Your task to perform on an android device: open the mobile data screen to see how much data has been used Image 0: 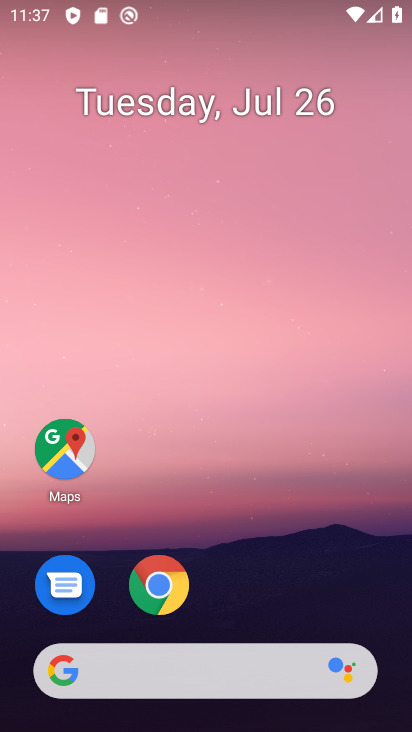
Step 0: click (283, 6)
Your task to perform on an android device: open the mobile data screen to see how much data has been used Image 1: 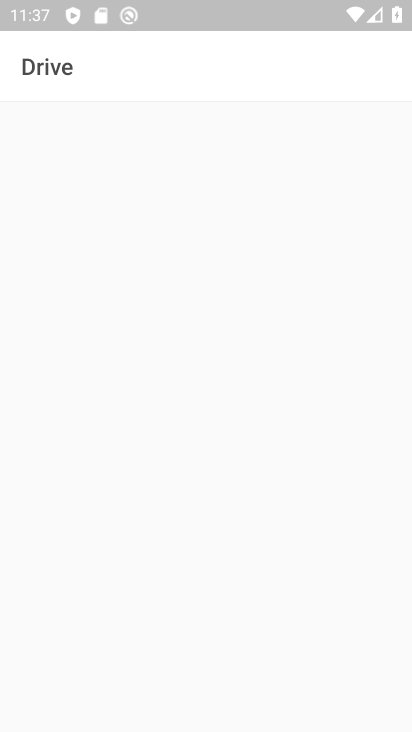
Step 1: press home button
Your task to perform on an android device: open the mobile data screen to see how much data has been used Image 2: 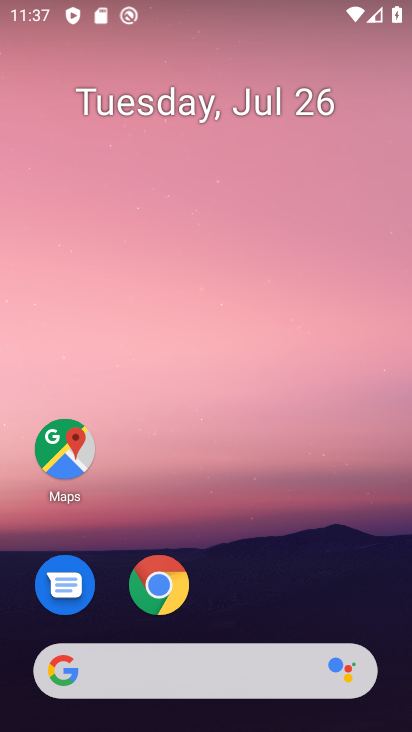
Step 2: drag from (266, 562) to (257, 114)
Your task to perform on an android device: open the mobile data screen to see how much data has been used Image 3: 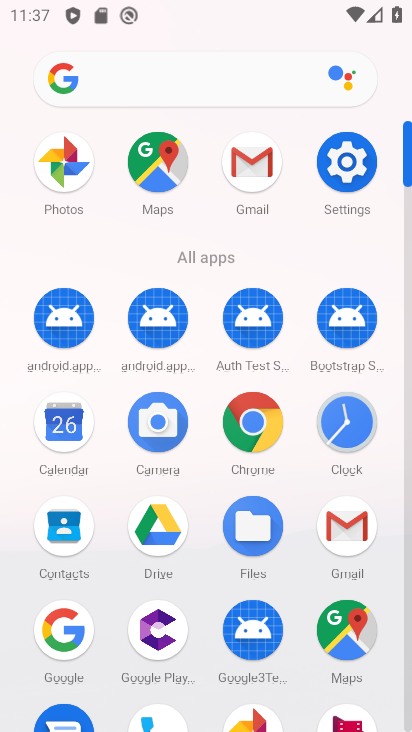
Step 3: click (342, 157)
Your task to perform on an android device: open the mobile data screen to see how much data has been used Image 4: 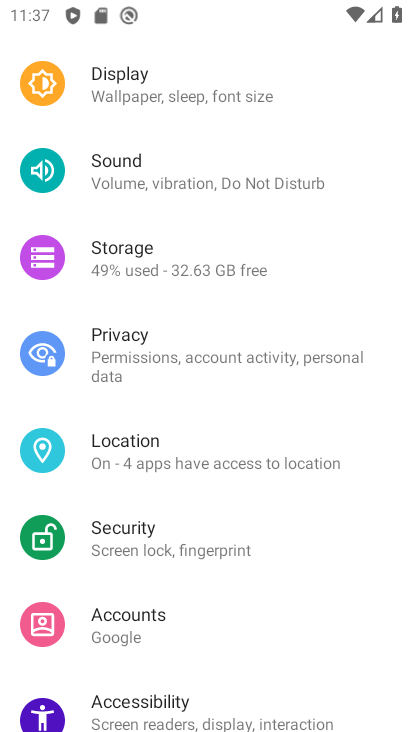
Step 4: drag from (230, 153) to (145, 674)
Your task to perform on an android device: open the mobile data screen to see how much data has been used Image 5: 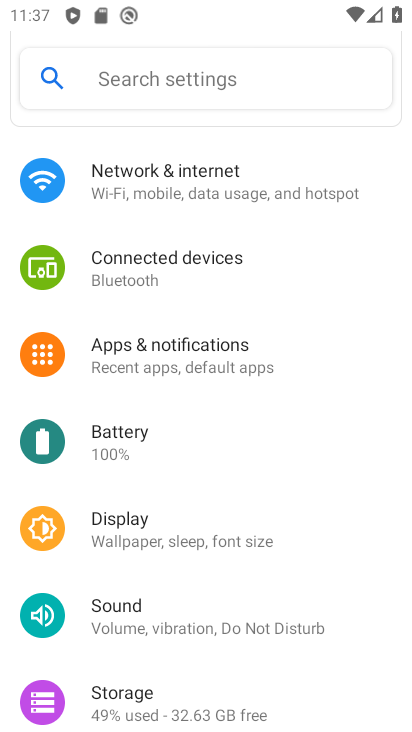
Step 5: click (230, 186)
Your task to perform on an android device: open the mobile data screen to see how much data has been used Image 6: 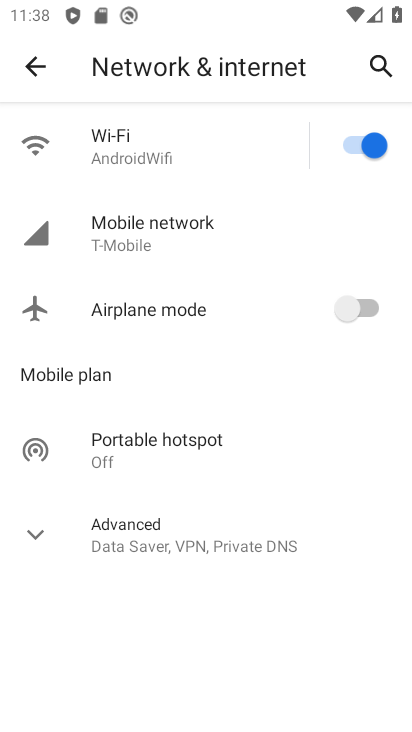
Step 6: click (196, 229)
Your task to perform on an android device: open the mobile data screen to see how much data has been used Image 7: 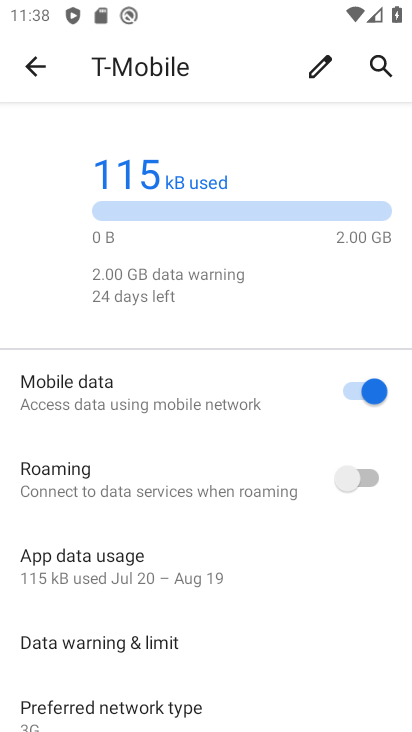
Step 7: task complete